Your task to perform on an android device: change your default location settings in chrome Image 0: 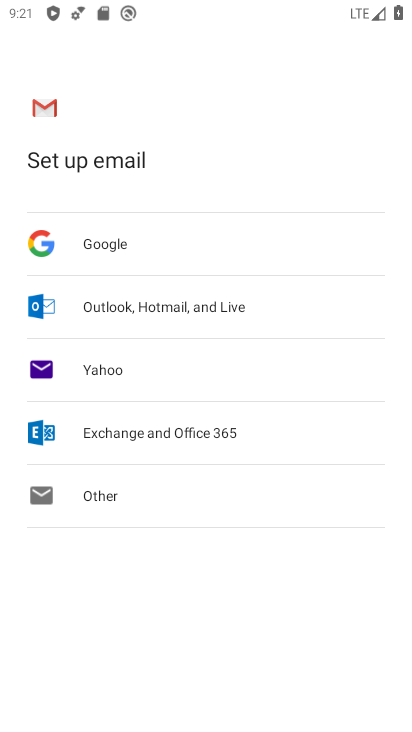
Step 0: press back button
Your task to perform on an android device: change your default location settings in chrome Image 1: 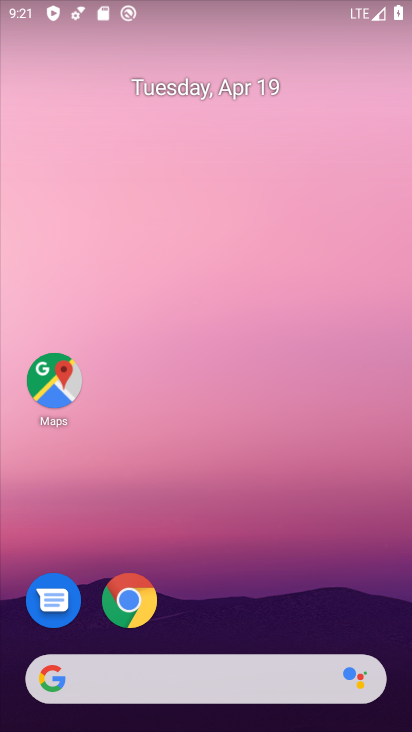
Step 1: drag from (346, 612) to (340, 281)
Your task to perform on an android device: change your default location settings in chrome Image 2: 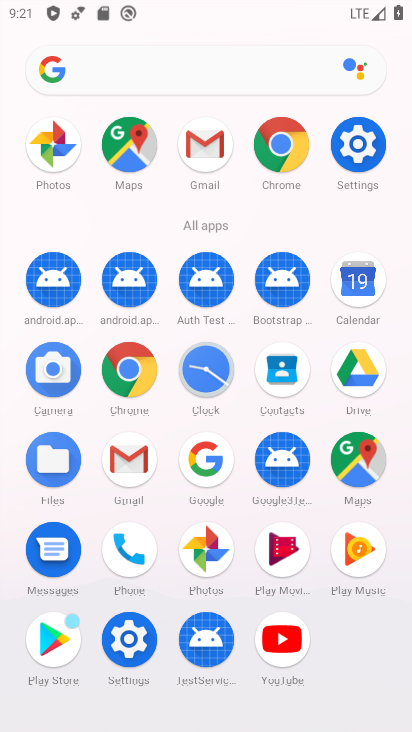
Step 2: click (301, 156)
Your task to perform on an android device: change your default location settings in chrome Image 3: 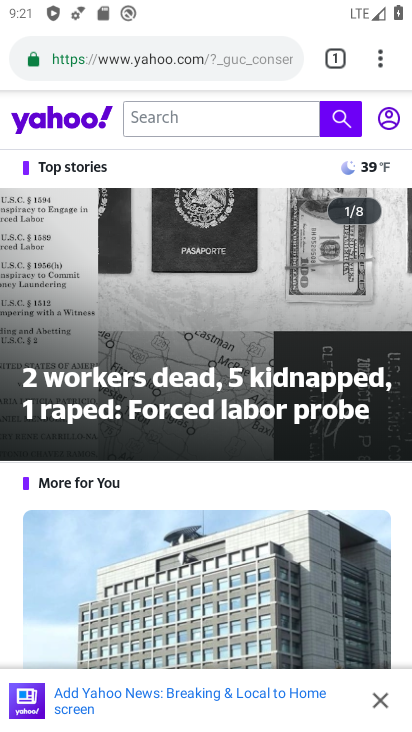
Step 3: click (387, 65)
Your task to perform on an android device: change your default location settings in chrome Image 4: 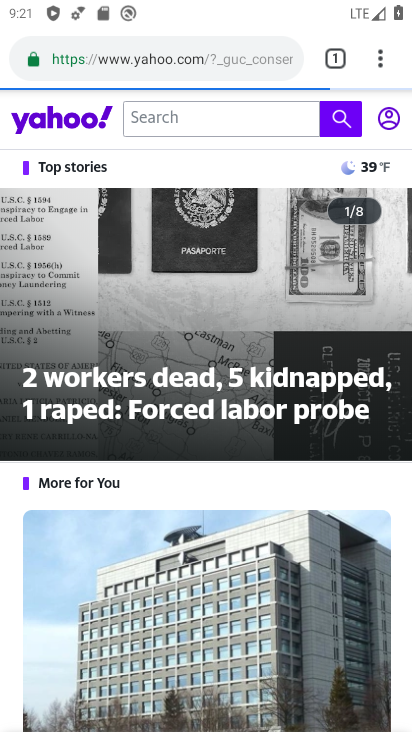
Step 4: click (378, 59)
Your task to perform on an android device: change your default location settings in chrome Image 5: 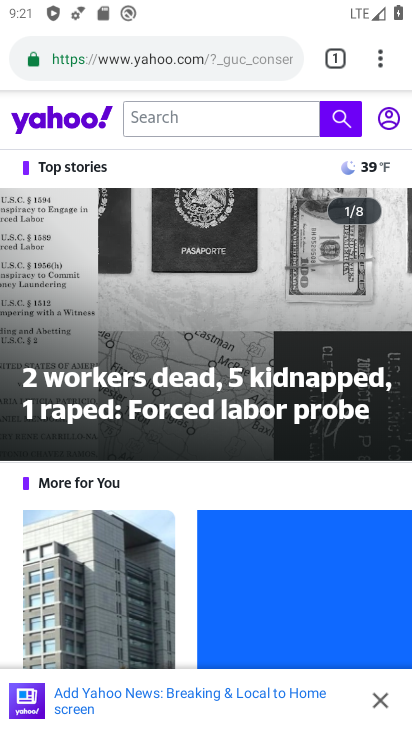
Step 5: click (382, 46)
Your task to perform on an android device: change your default location settings in chrome Image 6: 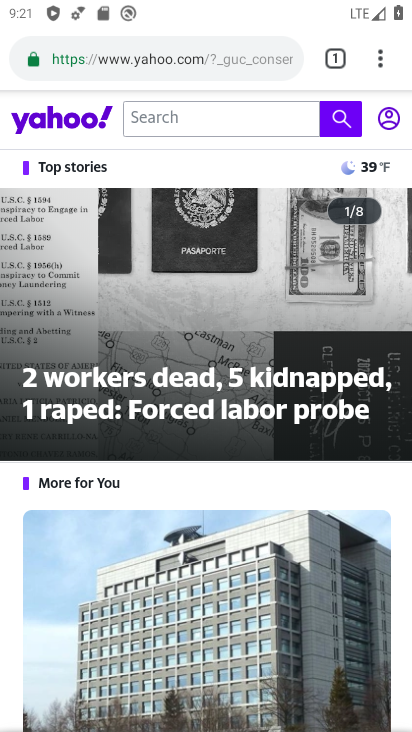
Step 6: drag from (378, 58) to (196, 624)
Your task to perform on an android device: change your default location settings in chrome Image 7: 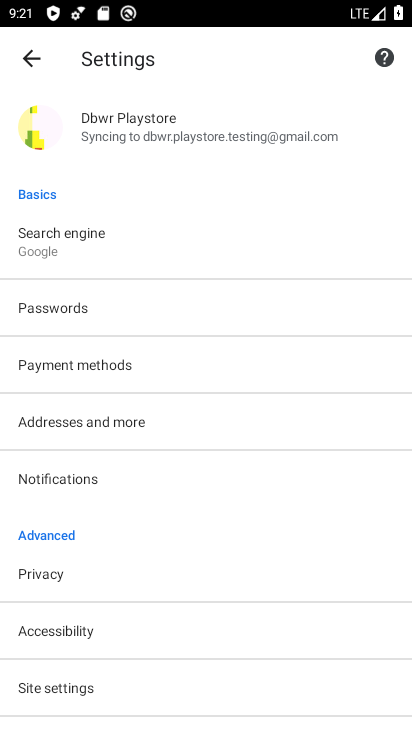
Step 7: click (201, 692)
Your task to perform on an android device: change your default location settings in chrome Image 8: 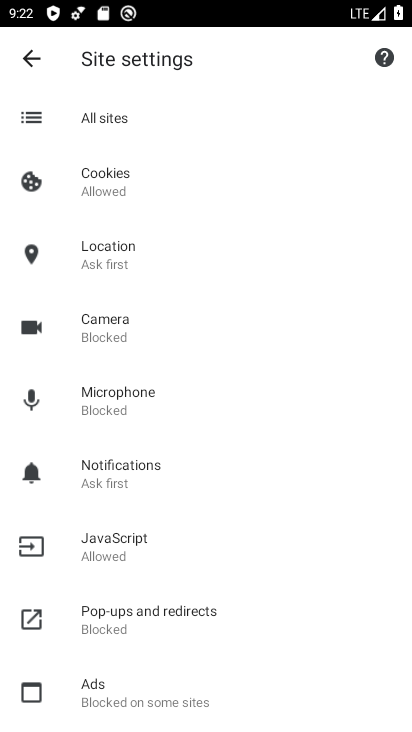
Step 8: click (219, 262)
Your task to perform on an android device: change your default location settings in chrome Image 9: 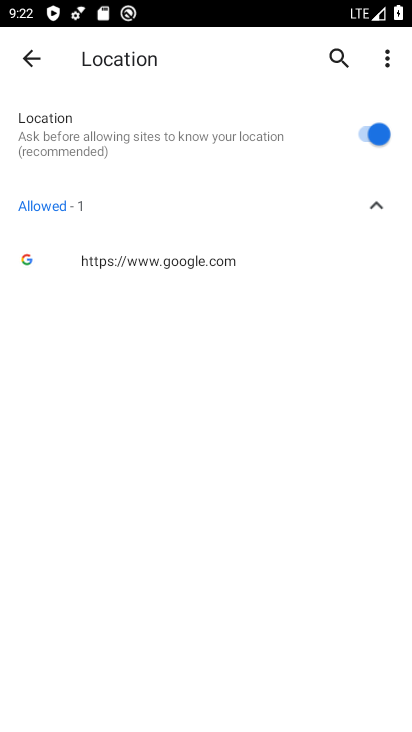
Step 9: task complete